Your task to perform on an android device: Search for razer huntsman on newegg, select the first entry, and add it to the cart. Image 0: 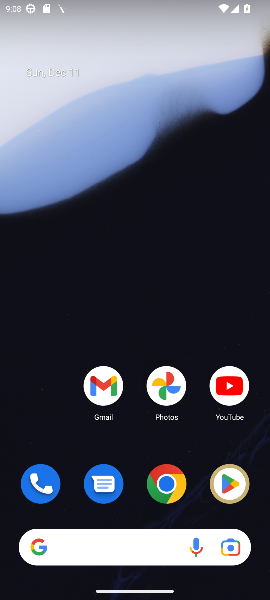
Step 0: click (161, 490)
Your task to perform on an android device: Search for razer huntsman on newegg, select the first entry, and add it to the cart. Image 1: 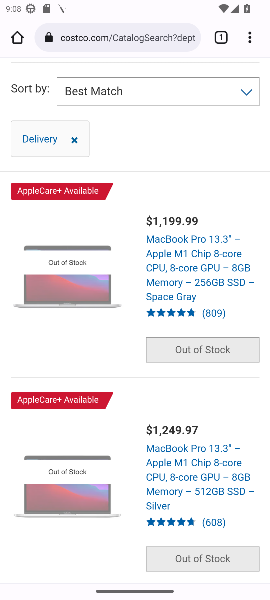
Step 1: click (84, 44)
Your task to perform on an android device: Search for razer huntsman on newegg, select the first entry, and add it to the cart. Image 2: 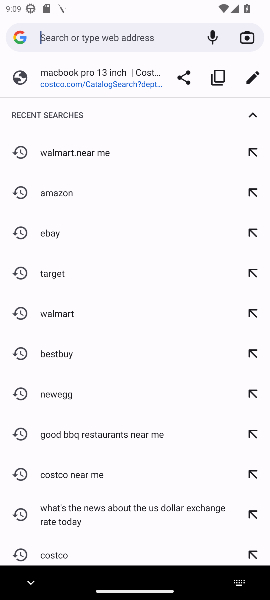
Step 2: type "newegg"
Your task to perform on an android device: Search for razer huntsman on newegg, select the first entry, and add it to the cart. Image 3: 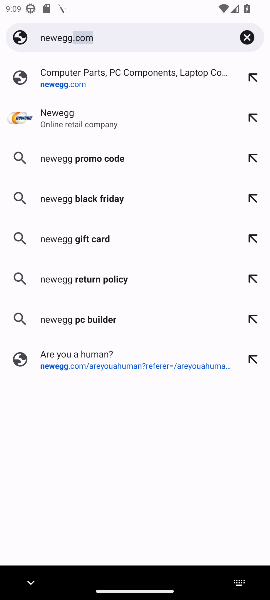
Step 3: click (68, 121)
Your task to perform on an android device: Search for razer huntsman on newegg, select the first entry, and add it to the cart. Image 4: 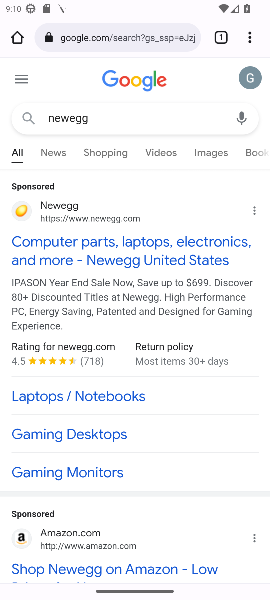
Step 4: click (77, 236)
Your task to perform on an android device: Search for razer huntsman on newegg, select the first entry, and add it to the cart. Image 5: 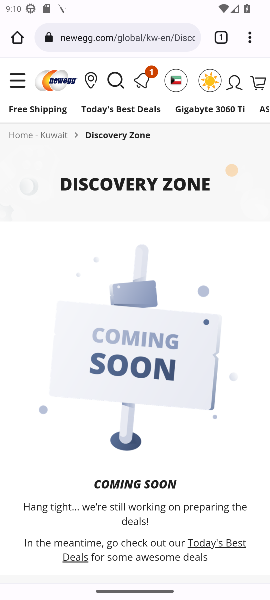
Step 5: click (108, 83)
Your task to perform on an android device: Search for razer huntsman on newegg, select the first entry, and add it to the cart. Image 6: 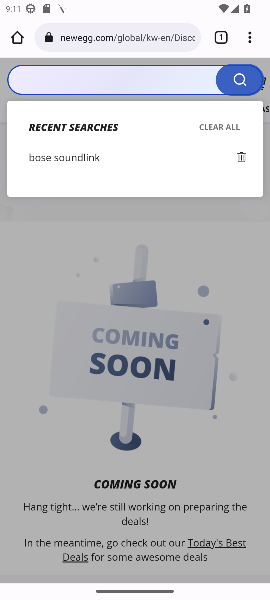
Step 6: click (112, 80)
Your task to perform on an android device: Search for razer huntsman on newegg, select the first entry, and add it to the cart. Image 7: 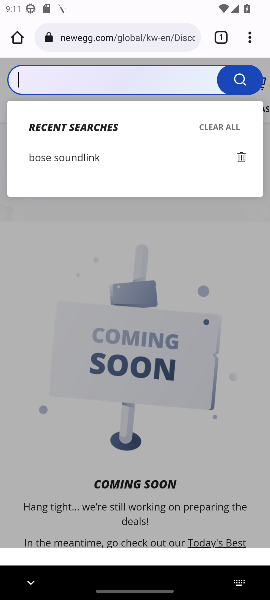
Step 7: click (170, 69)
Your task to perform on an android device: Search for razer huntsman on newegg, select the first entry, and add it to the cart. Image 8: 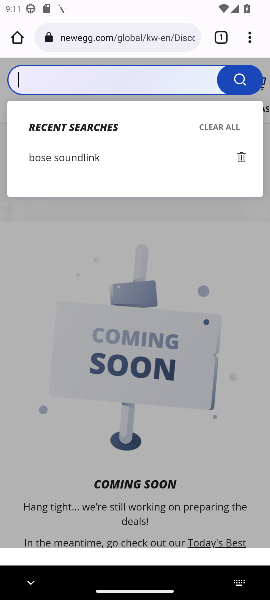
Step 8: type " razer huntsman "
Your task to perform on an android device: Search for razer huntsman on newegg, select the first entry, and add it to the cart. Image 9: 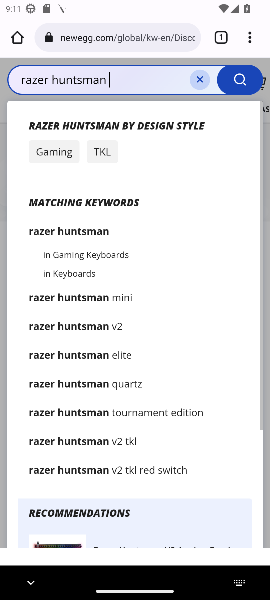
Step 9: click (249, 85)
Your task to perform on an android device: Search for razer huntsman on newegg, select the first entry, and add it to the cart. Image 10: 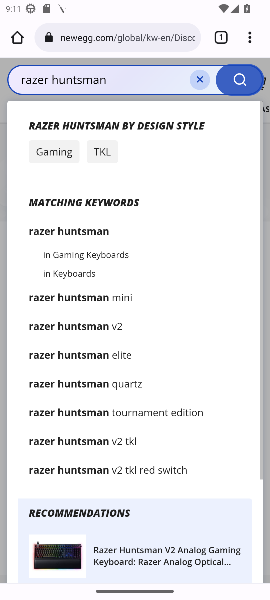
Step 10: click (241, 75)
Your task to perform on an android device: Search for razer huntsman on newegg, select the first entry, and add it to the cart. Image 11: 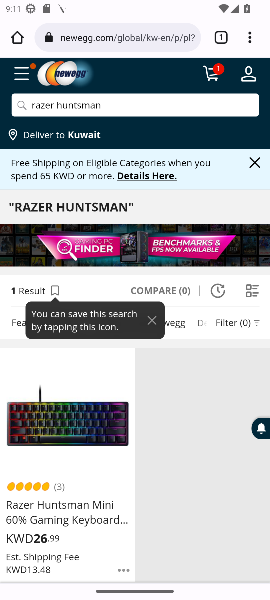
Step 11: click (49, 523)
Your task to perform on an android device: Search for razer huntsman on newegg, select the first entry, and add it to the cart. Image 12: 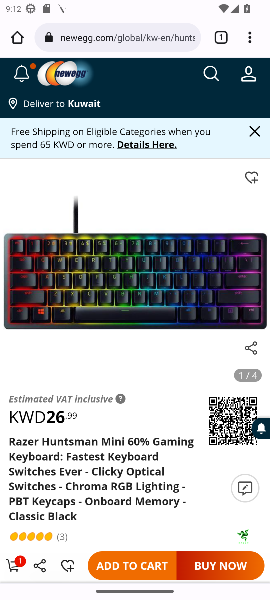
Step 12: click (134, 557)
Your task to perform on an android device: Search for razer huntsman on newegg, select the first entry, and add it to the cart. Image 13: 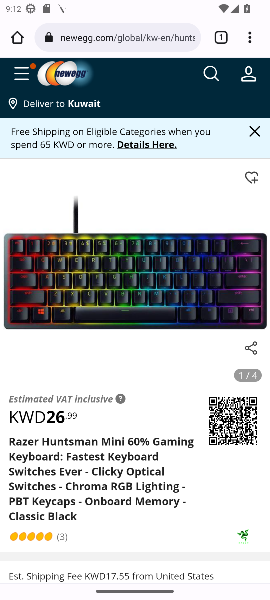
Step 13: drag from (120, 538) to (173, 139)
Your task to perform on an android device: Search for razer huntsman on newegg, select the first entry, and add it to the cart. Image 14: 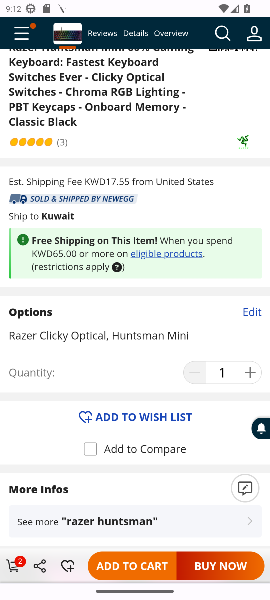
Step 14: click (128, 571)
Your task to perform on an android device: Search for razer huntsman on newegg, select the first entry, and add it to the cart. Image 15: 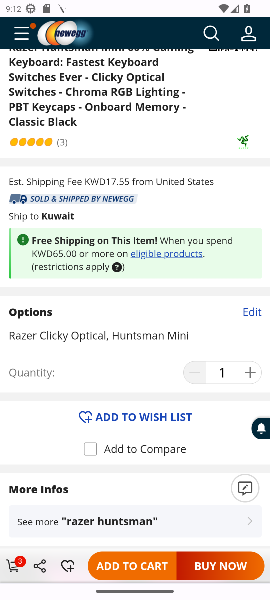
Step 15: click (15, 564)
Your task to perform on an android device: Search for razer huntsman on newegg, select the first entry, and add it to the cart. Image 16: 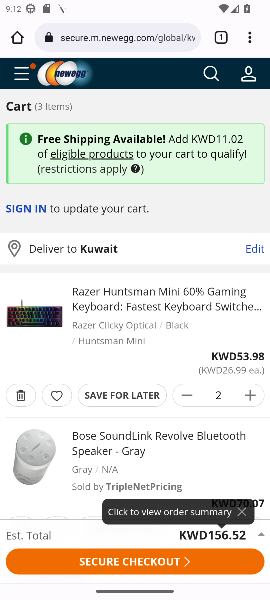
Step 16: task complete